Your task to perform on an android device: What is the news today? Image 0: 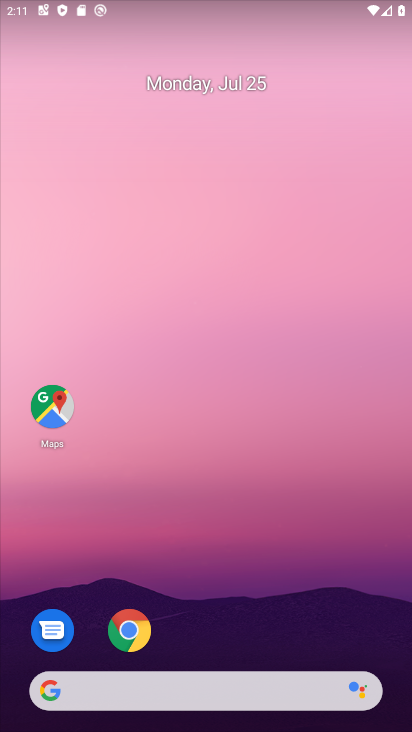
Step 0: click (227, 671)
Your task to perform on an android device: What is the news today? Image 1: 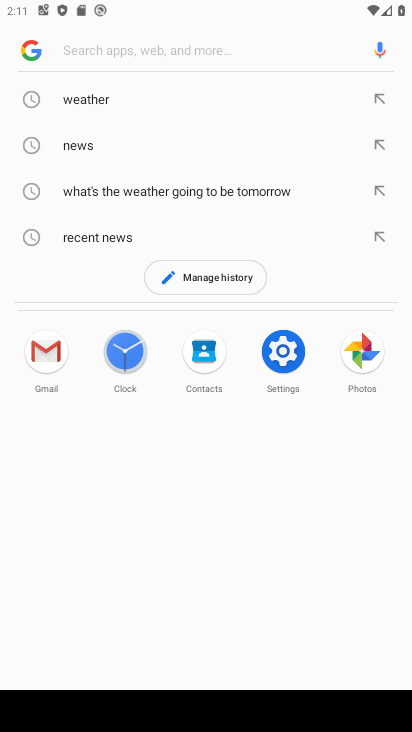
Step 1: click (74, 157)
Your task to perform on an android device: What is the news today? Image 2: 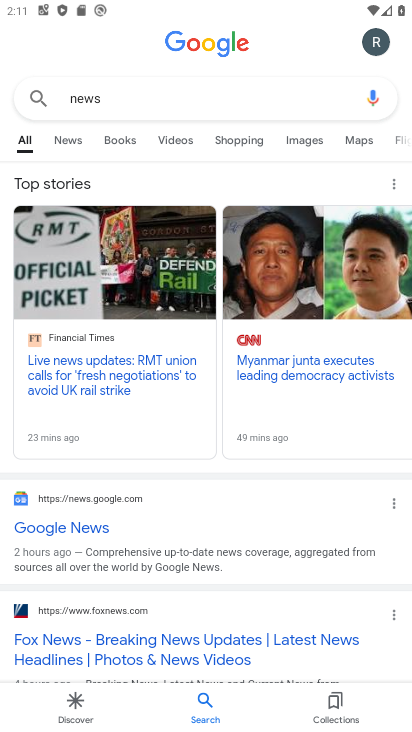
Step 2: task complete